Your task to perform on an android device: Clear all items from cart on costco.com. Search for "alienware area 51" on costco.com, select the first entry, add it to the cart, then select checkout. Image 0: 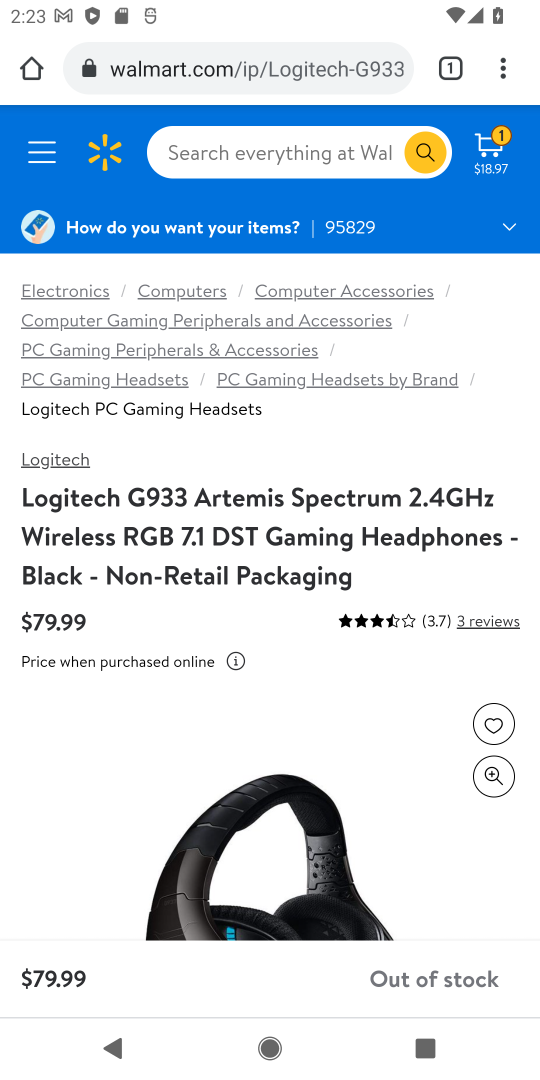
Step 0: press home button
Your task to perform on an android device: Clear all items from cart on costco.com. Search for "alienware area 51" on costco.com, select the first entry, add it to the cart, then select checkout. Image 1: 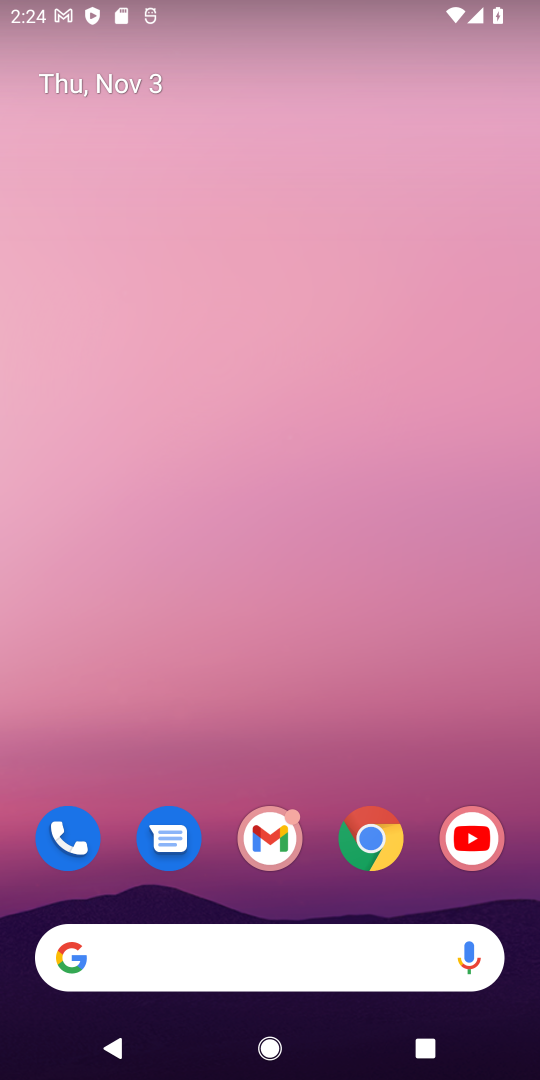
Step 1: drag from (320, 903) to (370, 108)
Your task to perform on an android device: Clear all items from cart on costco.com. Search for "alienware area 51" on costco.com, select the first entry, add it to the cart, then select checkout. Image 2: 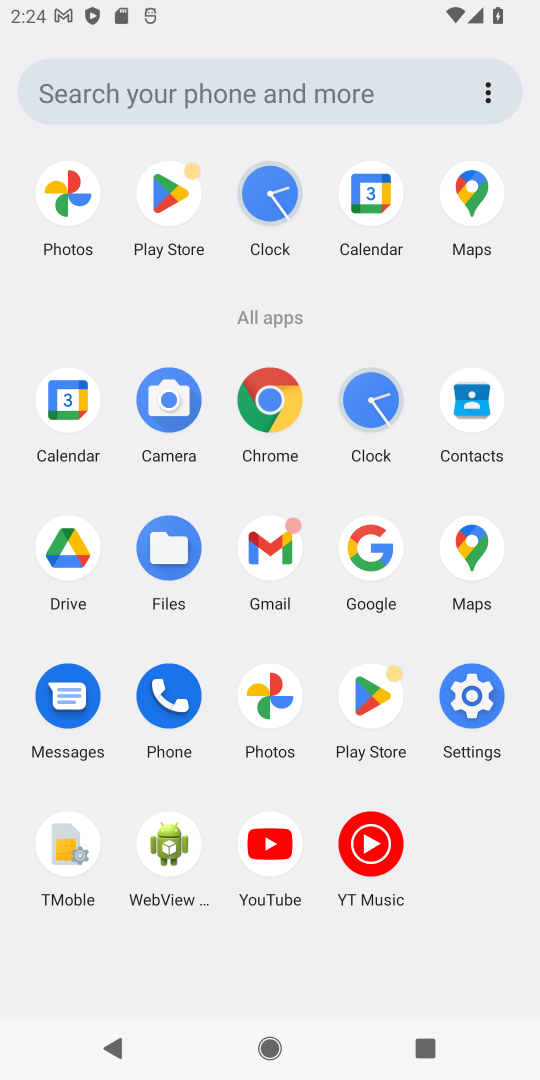
Step 2: click (271, 399)
Your task to perform on an android device: Clear all items from cart on costco.com. Search for "alienware area 51" on costco.com, select the first entry, add it to the cart, then select checkout. Image 3: 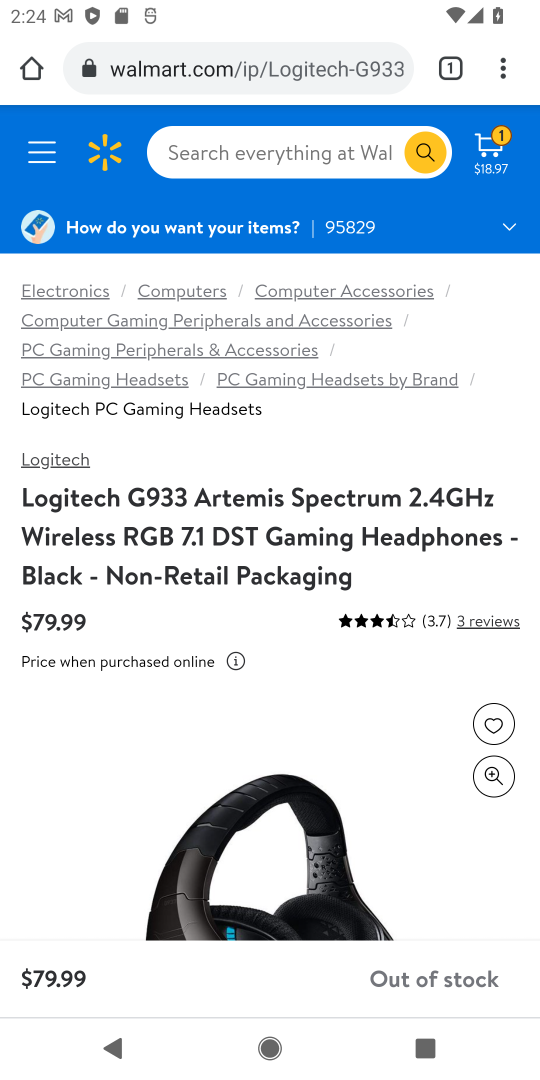
Step 3: click (216, 78)
Your task to perform on an android device: Clear all items from cart on costco.com. Search for "alienware area 51" on costco.com, select the first entry, add it to the cart, then select checkout. Image 4: 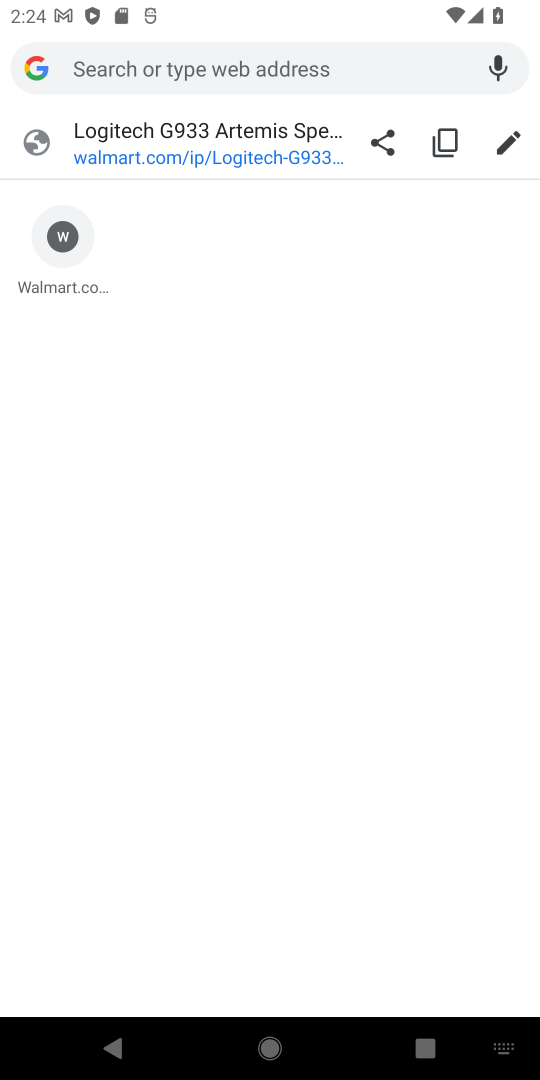
Step 4: type "costco.com"
Your task to perform on an android device: Clear all items from cart on costco.com. Search for "alienware area 51" on costco.com, select the first entry, add it to the cart, then select checkout. Image 5: 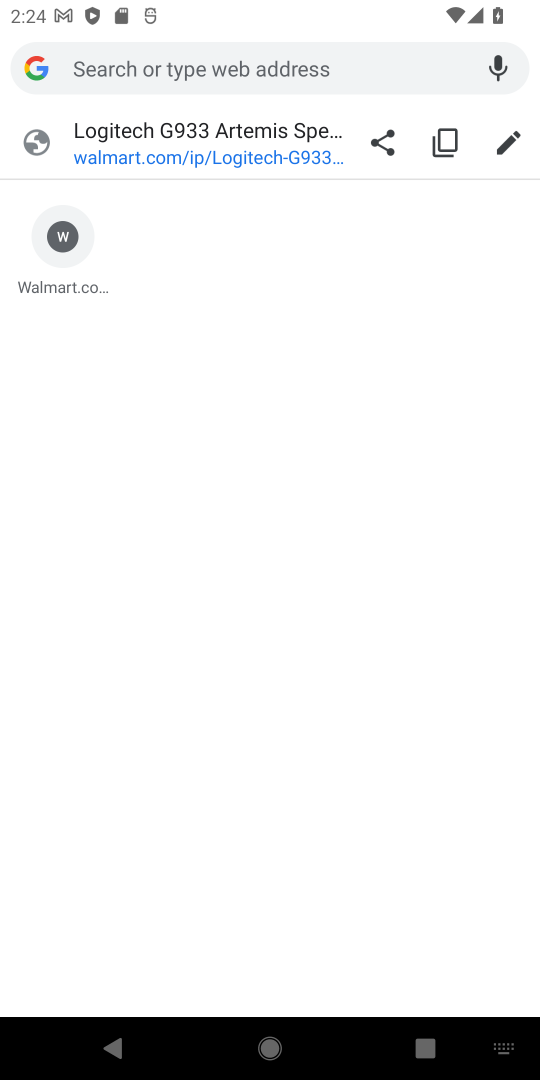
Step 5: click (150, 57)
Your task to perform on an android device: Clear all items from cart on costco.com. Search for "alienware area 51" on costco.com, select the first entry, add it to the cart, then select checkout. Image 6: 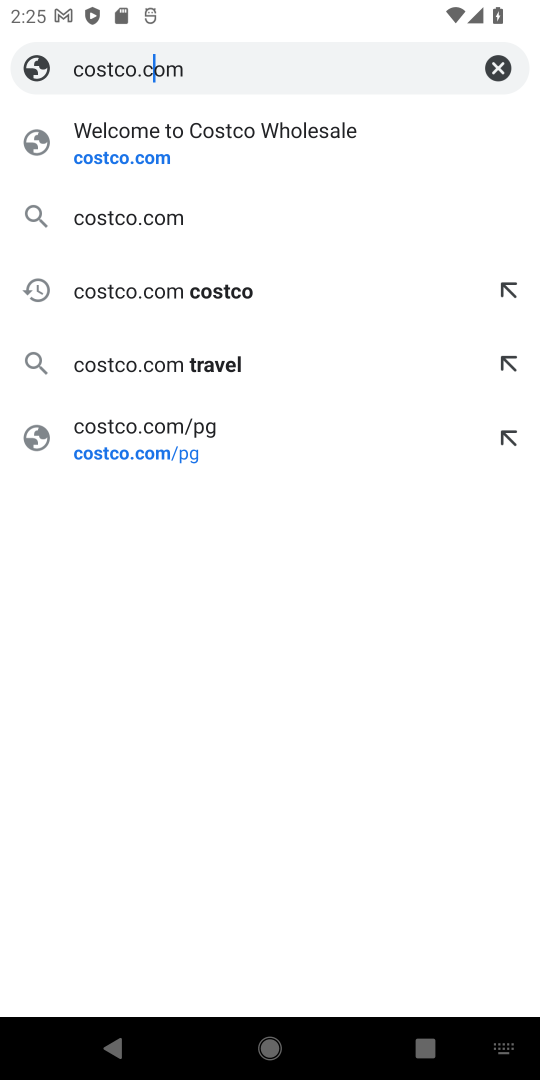
Step 6: press enter
Your task to perform on an android device: Clear all items from cart on costco.com. Search for "alienware area 51" on costco.com, select the first entry, add it to the cart, then select checkout. Image 7: 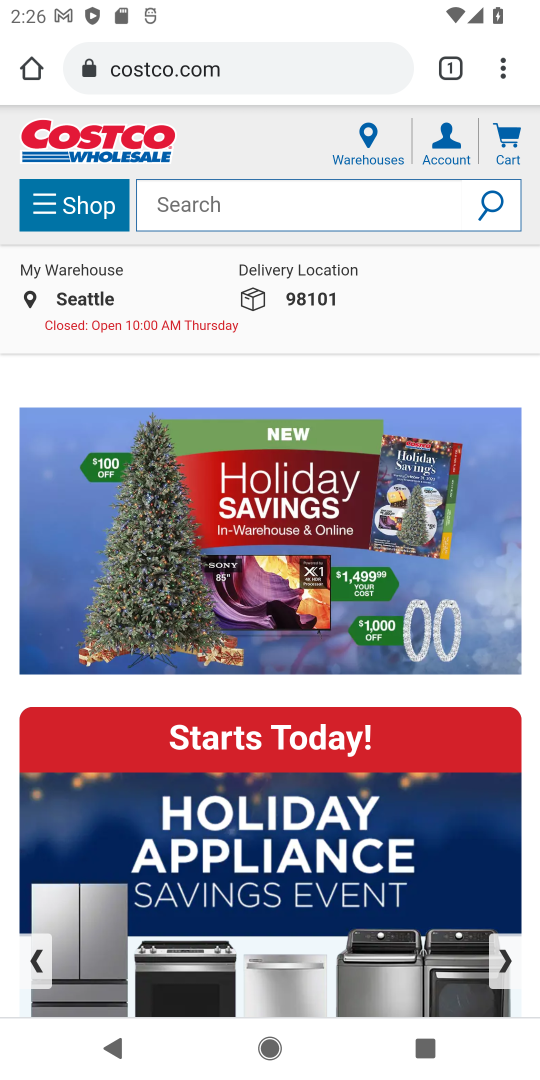
Step 7: click (507, 128)
Your task to perform on an android device: Clear all items from cart on costco.com. Search for "alienware area 51" on costco.com, select the first entry, add it to the cart, then select checkout. Image 8: 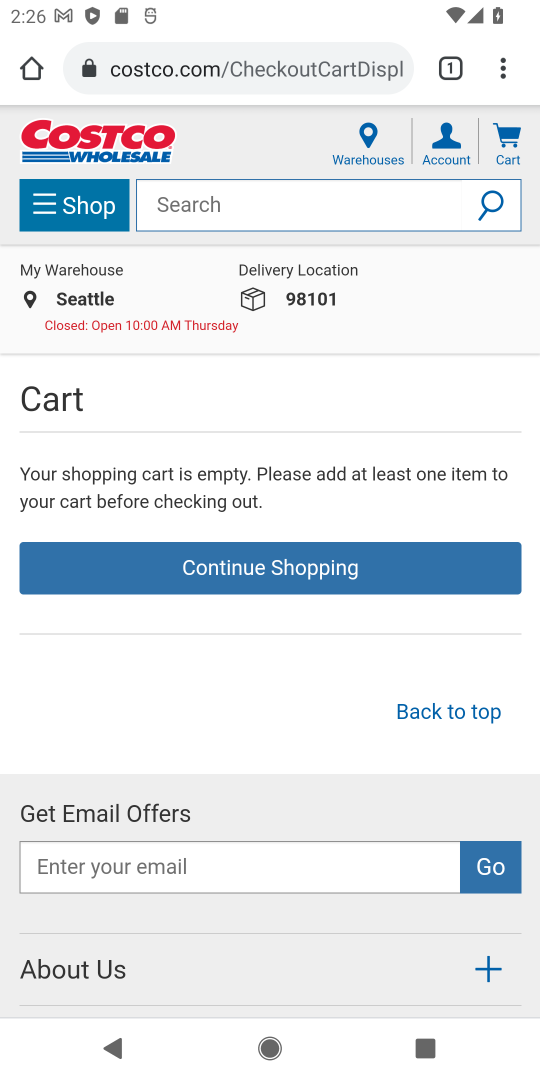
Step 8: click (398, 197)
Your task to perform on an android device: Clear all items from cart on costco.com. Search for "alienware area 51" on costco.com, select the first entry, add it to the cart, then select checkout. Image 9: 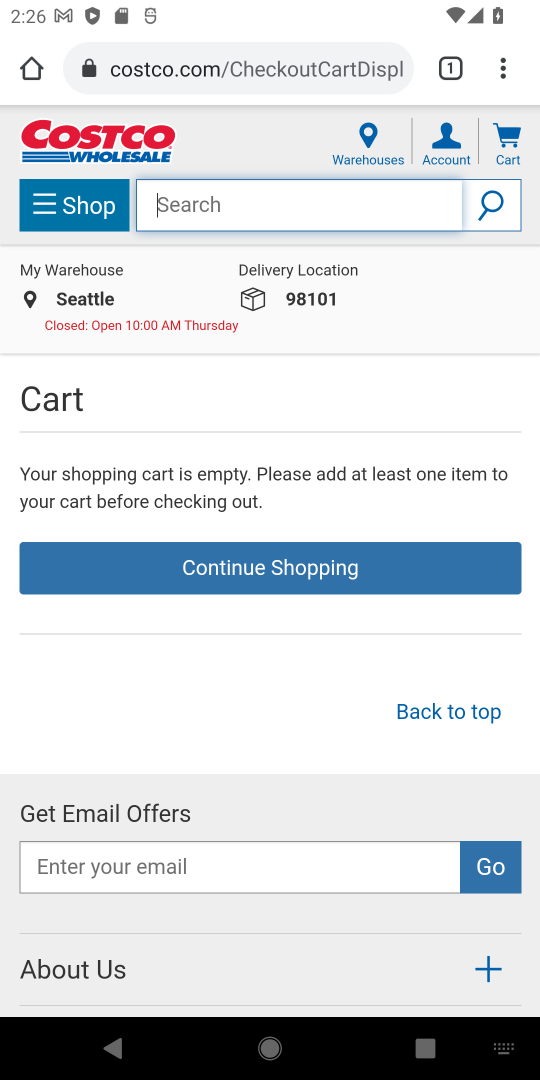
Step 9: type "alienware area 51"
Your task to perform on an android device: Clear all items from cart on costco.com. Search for "alienware area 51" on costco.com, select the first entry, add it to the cart, then select checkout. Image 10: 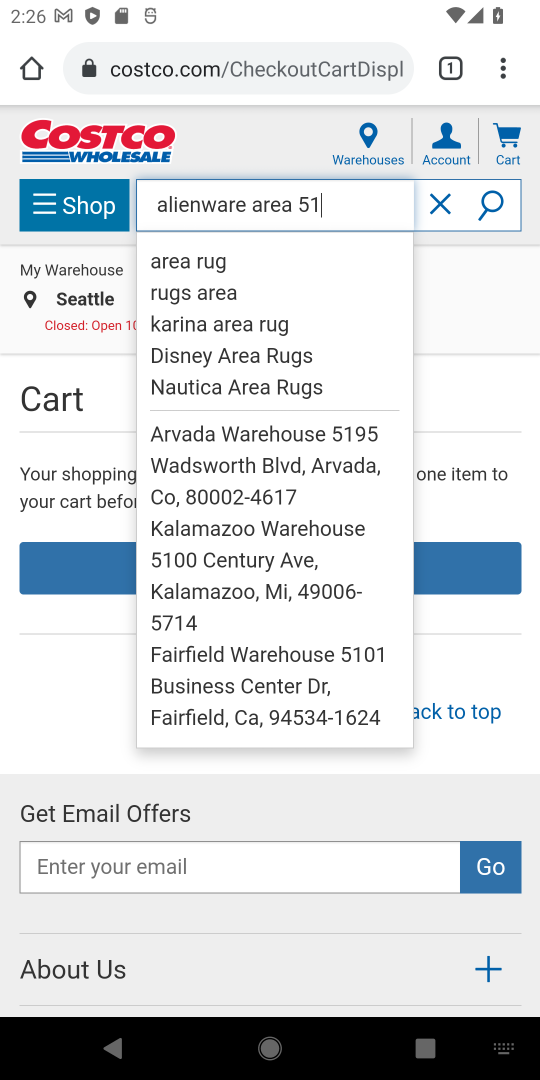
Step 10: press enter
Your task to perform on an android device: Clear all items from cart on costco.com. Search for "alienware area 51" on costco.com, select the first entry, add it to the cart, then select checkout. Image 11: 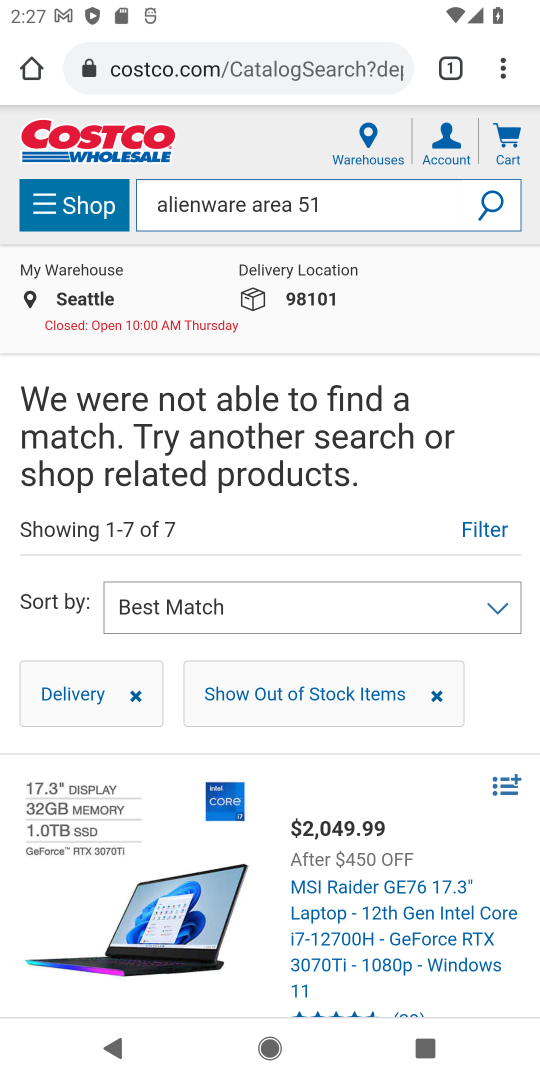
Step 11: task complete